Your task to perform on an android device: Go to Amazon Image 0: 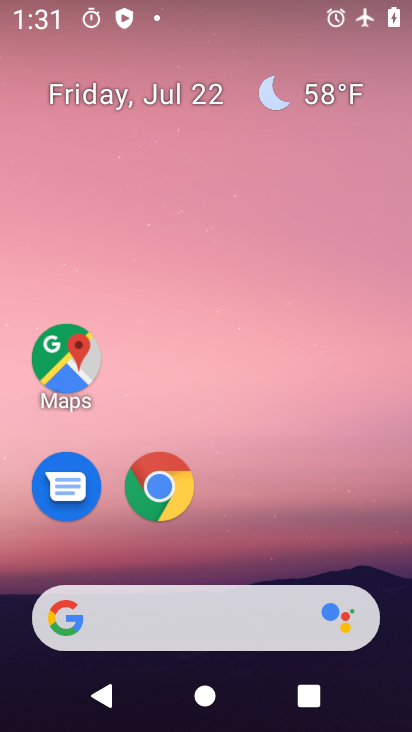
Step 0: drag from (374, 515) to (358, 101)
Your task to perform on an android device: Go to Amazon Image 1: 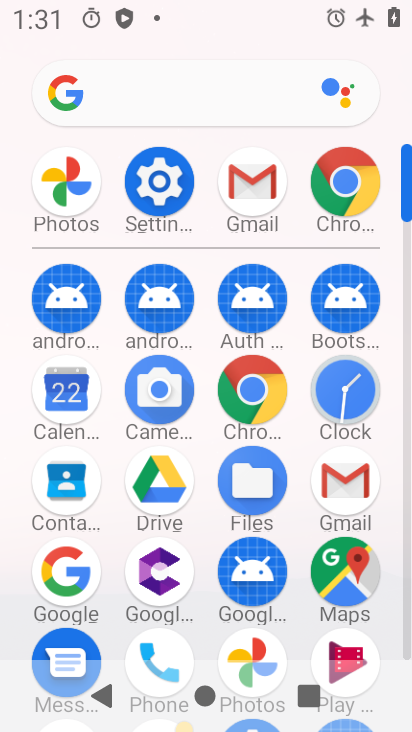
Step 1: click (245, 399)
Your task to perform on an android device: Go to Amazon Image 2: 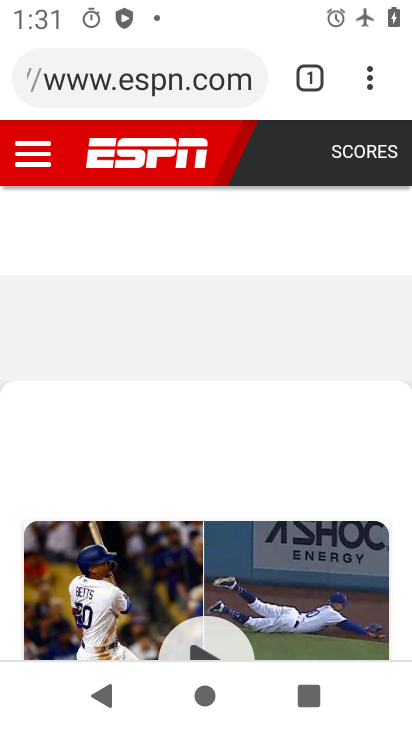
Step 2: click (226, 79)
Your task to perform on an android device: Go to Amazon Image 3: 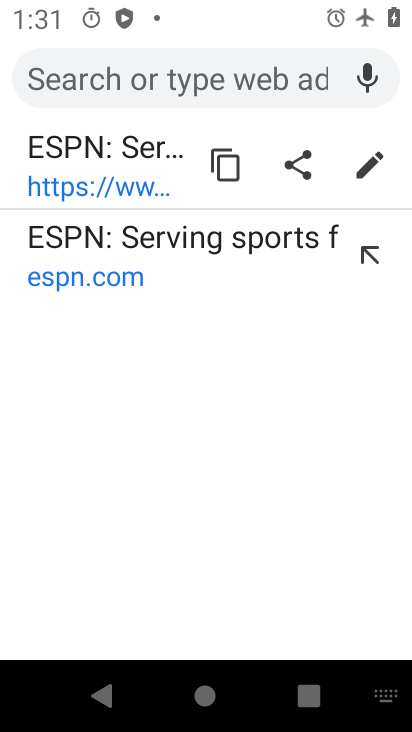
Step 3: type "amazon"
Your task to perform on an android device: Go to Amazon Image 4: 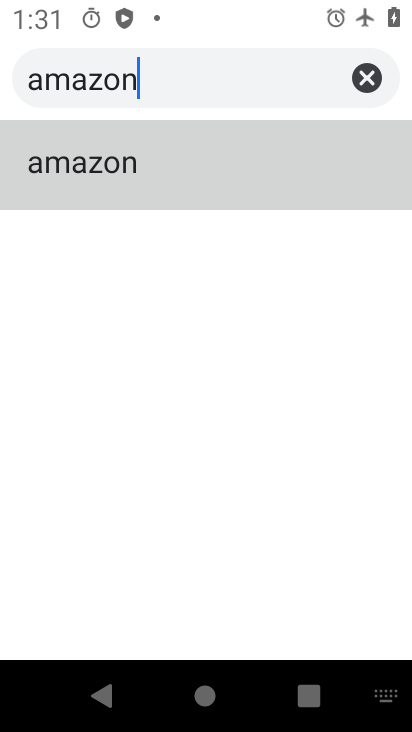
Step 4: click (337, 158)
Your task to perform on an android device: Go to Amazon Image 5: 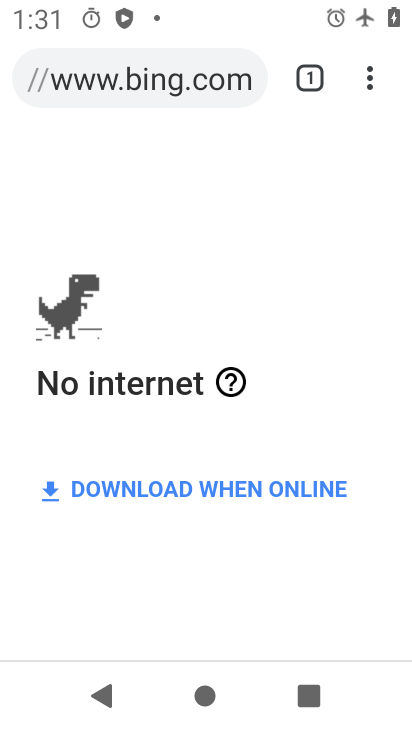
Step 5: task complete